Your task to perform on an android device: open the mobile data screen to see how much data has been used Image 0: 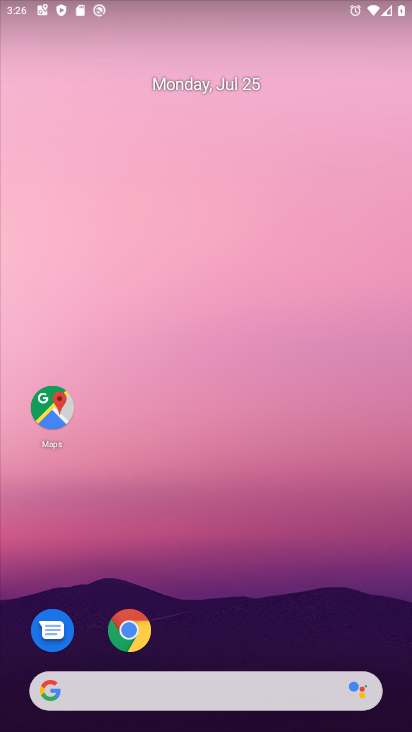
Step 0: drag from (190, 680) to (120, 0)
Your task to perform on an android device: open the mobile data screen to see how much data has been used Image 1: 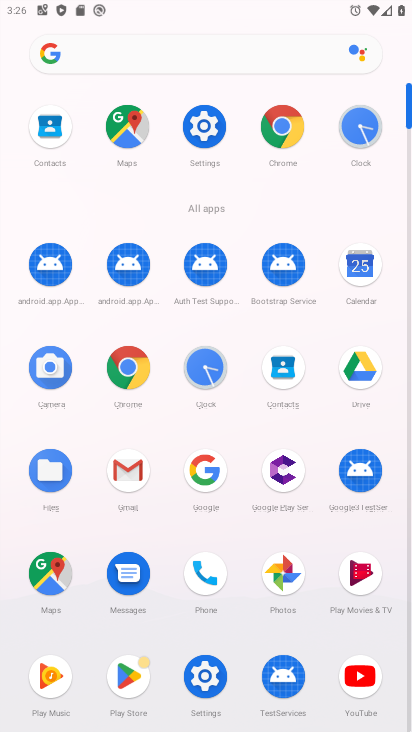
Step 1: click (203, 125)
Your task to perform on an android device: open the mobile data screen to see how much data has been used Image 2: 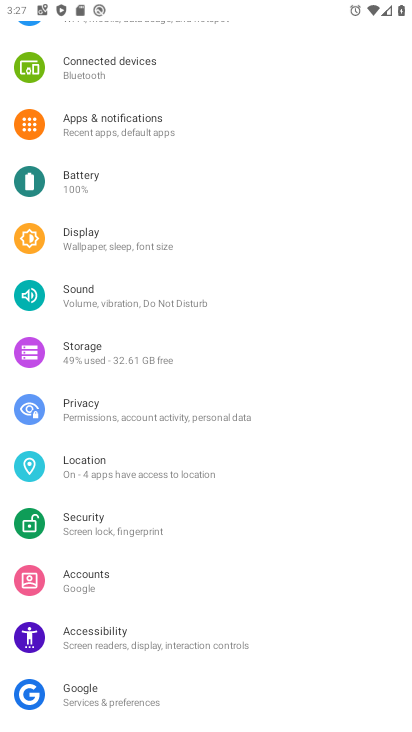
Step 2: drag from (110, 105) to (131, 278)
Your task to perform on an android device: open the mobile data screen to see how much data has been used Image 3: 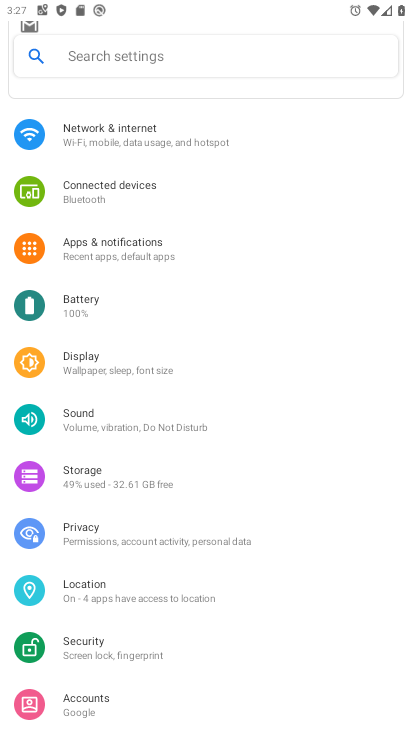
Step 3: click (121, 146)
Your task to perform on an android device: open the mobile data screen to see how much data has been used Image 4: 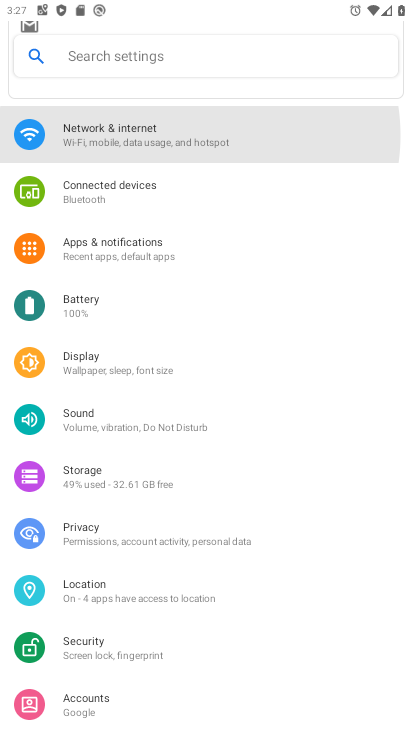
Step 4: click (121, 146)
Your task to perform on an android device: open the mobile data screen to see how much data has been used Image 5: 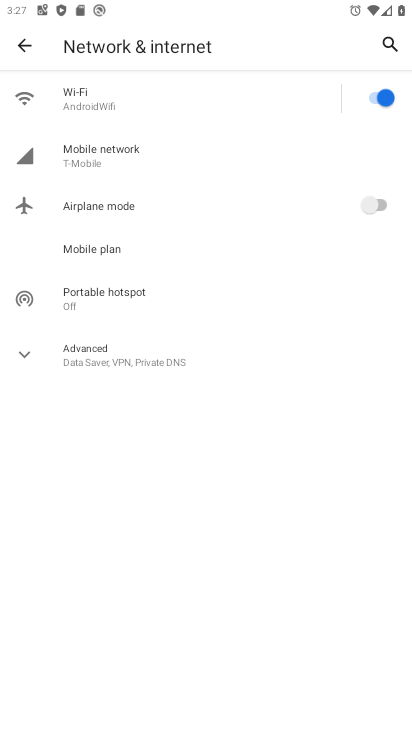
Step 5: click (106, 148)
Your task to perform on an android device: open the mobile data screen to see how much data has been used Image 6: 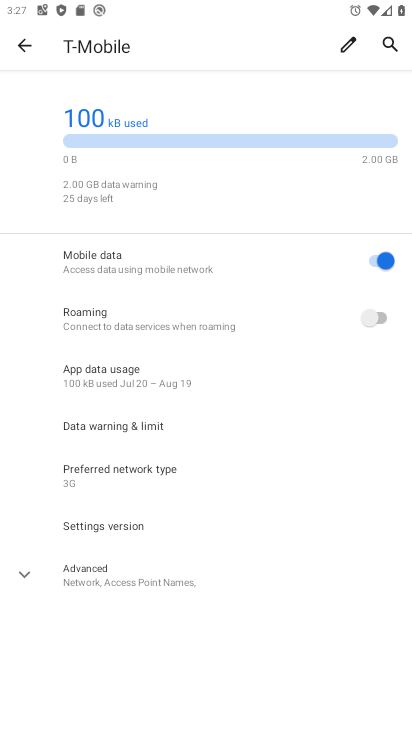
Step 6: task complete